Your task to perform on an android device: check the backup settings in the google photos Image 0: 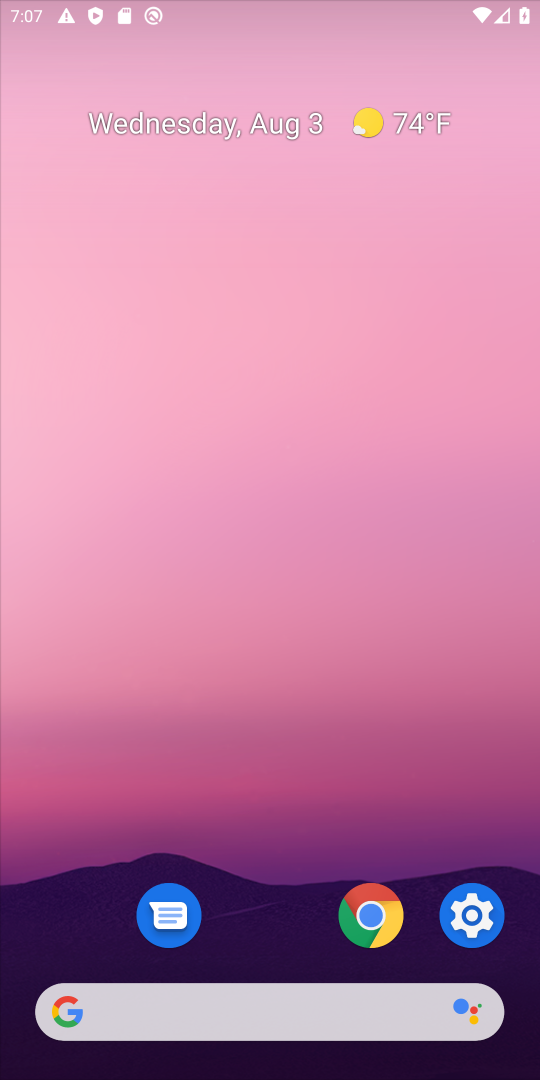
Step 0: press home button
Your task to perform on an android device: check the backup settings in the google photos Image 1: 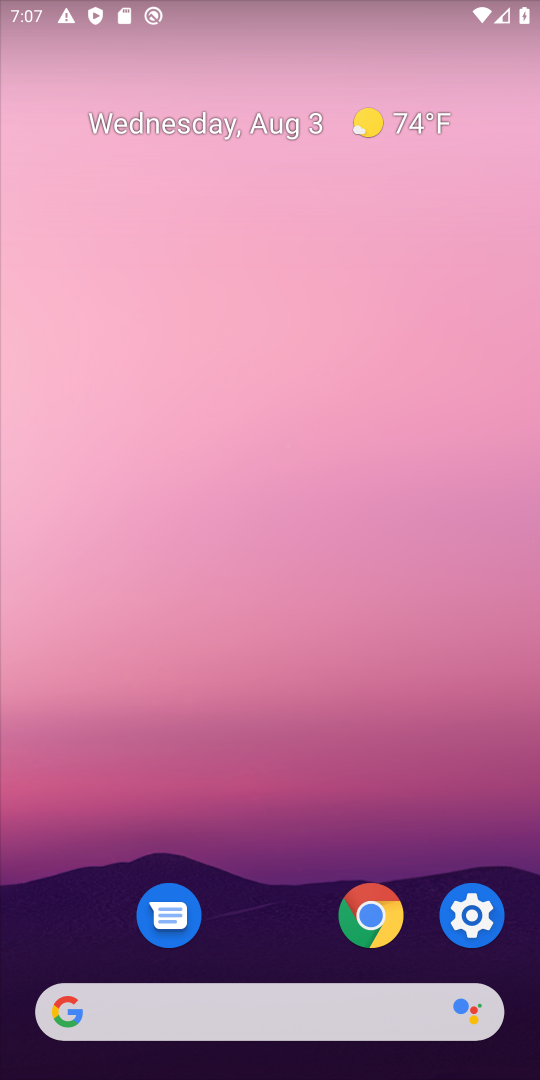
Step 1: drag from (335, 914) to (206, 201)
Your task to perform on an android device: check the backup settings in the google photos Image 2: 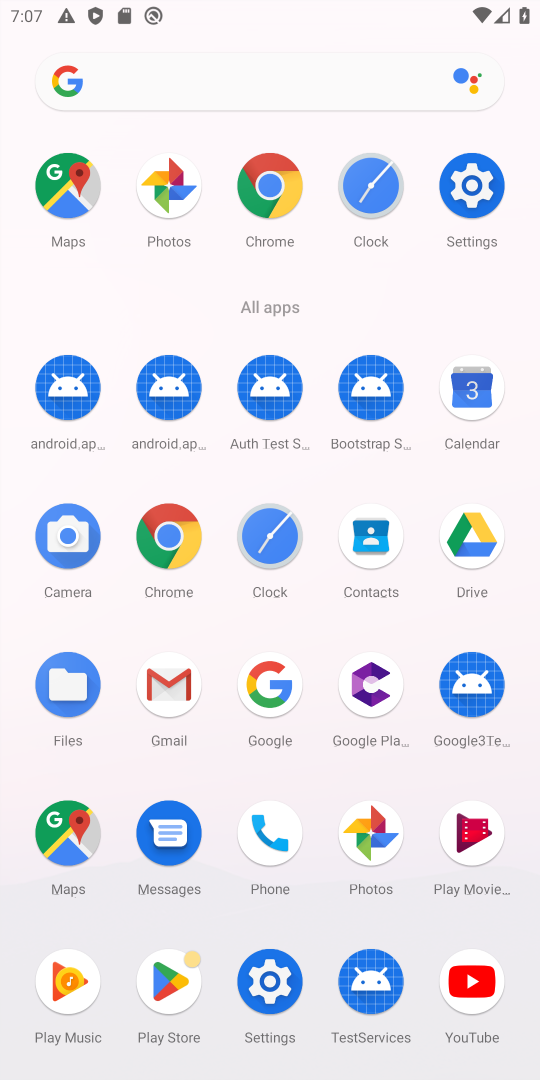
Step 2: click (361, 830)
Your task to perform on an android device: check the backup settings in the google photos Image 3: 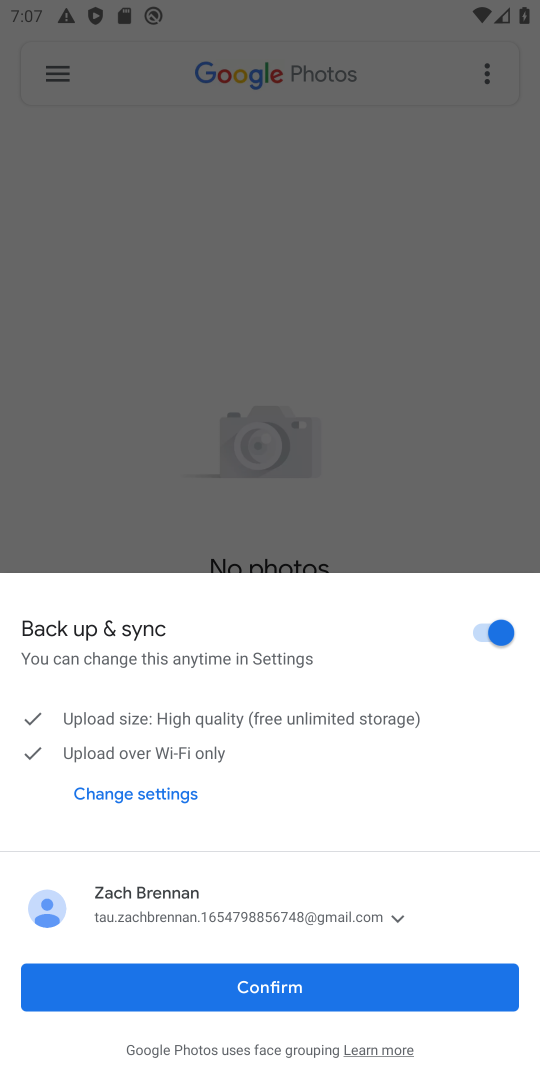
Step 3: click (228, 992)
Your task to perform on an android device: check the backup settings in the google photos Image 4: 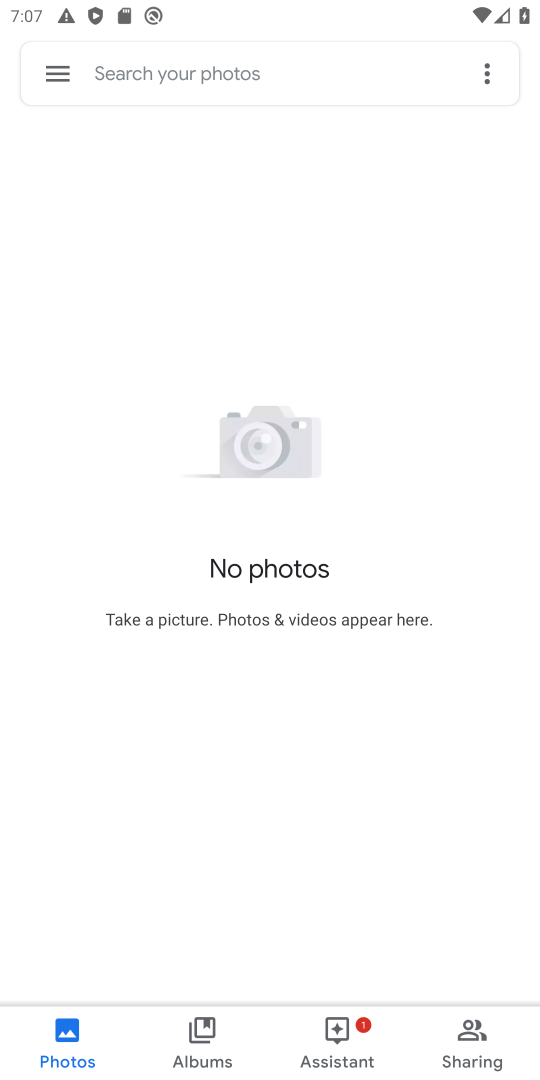
Step 4: click (61, 82)
Your task to perform on an android device: check the backup settings in the google photos Image 5: 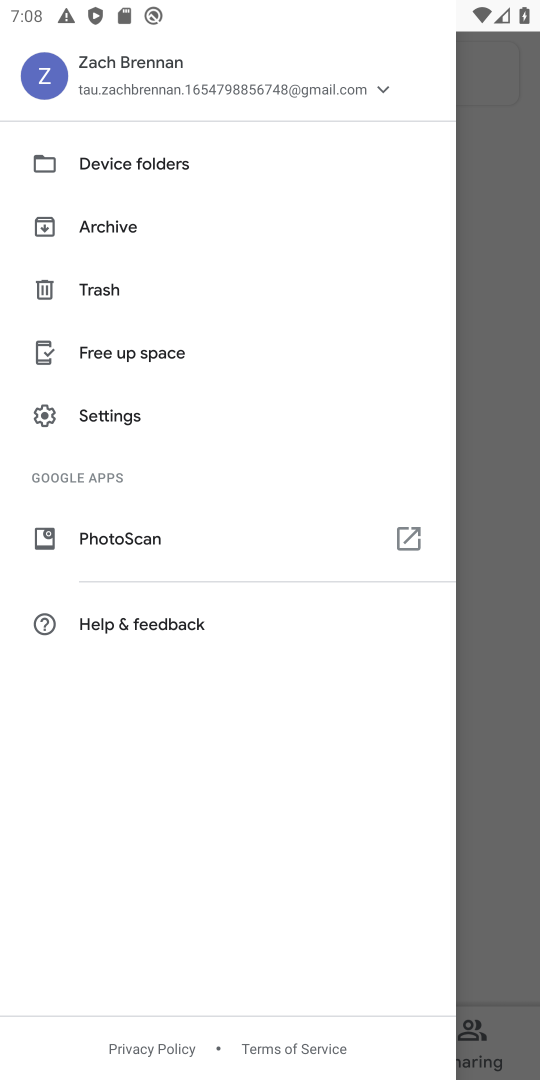
Step 5: click (140, 424)
Your task to perform on an android device: check the backup settings in the google photos Image 6: 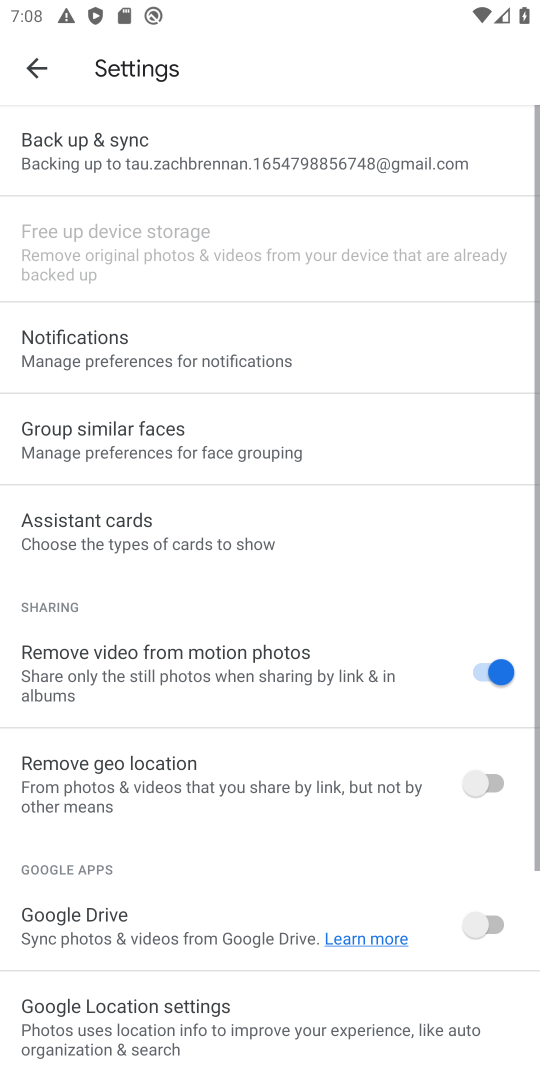
Step 6: click (97, 165)
Your task to perform on an android device: check the backup settings in the google photos Image 7: 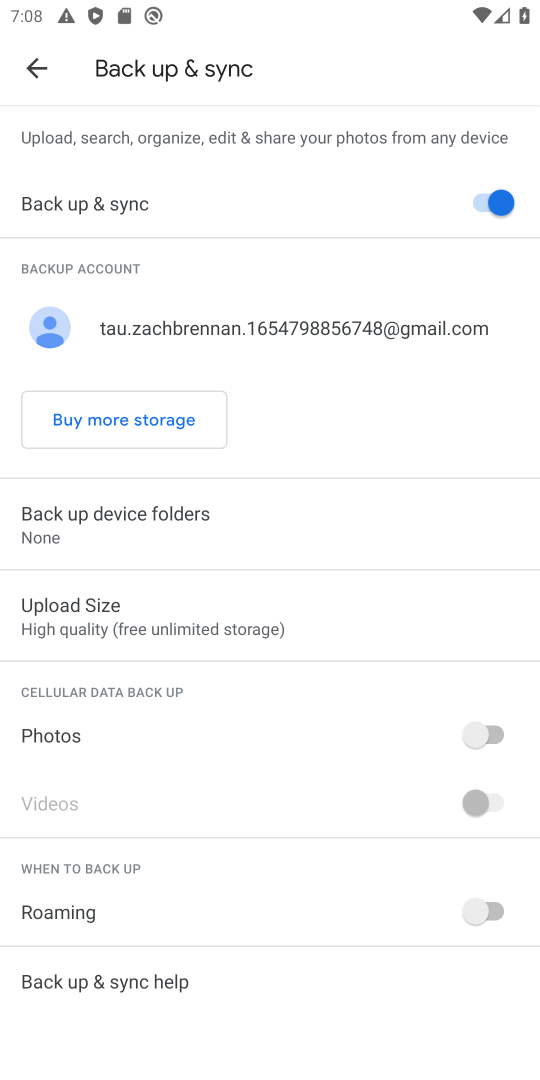
Step 7: task complete